Your task to perform on an android device: Go to Android settings Image 0: 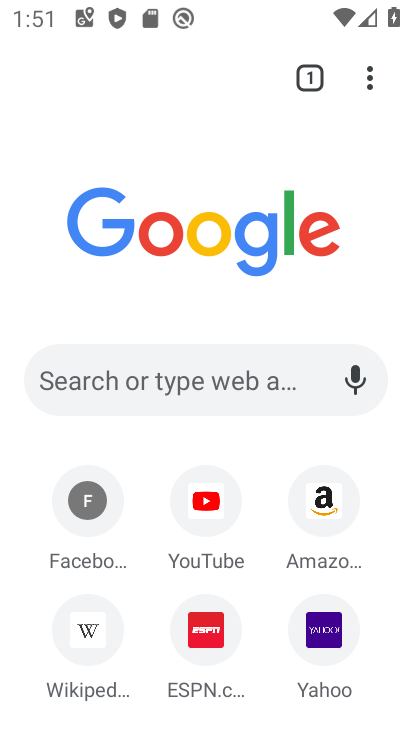
Step 0: press home button
Your task to perform on an android device: Go to Android settings Image 1: 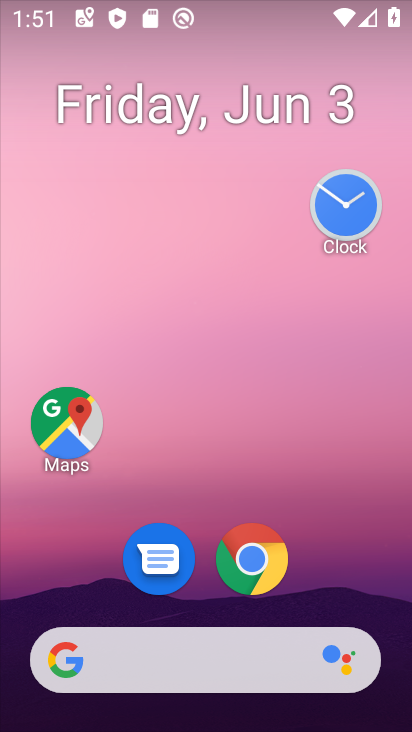
Step 1: drag from (378, 546) to (361, 189)
Your task to perform on an android device: Go to Android settings Image 2: 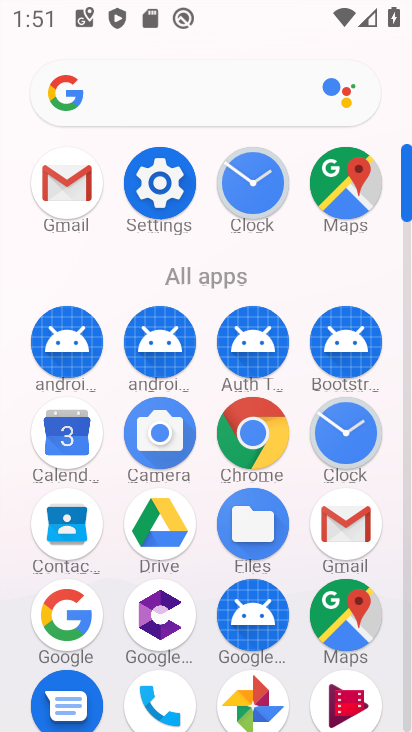
Step 2: click (175, 176)
Your task to perform on an android device: Go to Android settings Image 3: 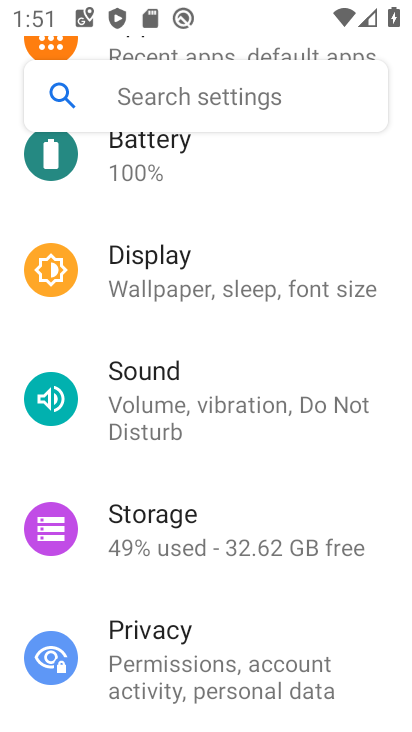
Step 3: task complete